Your task to perform on an android device: turn on improve location accuracy Image 0: 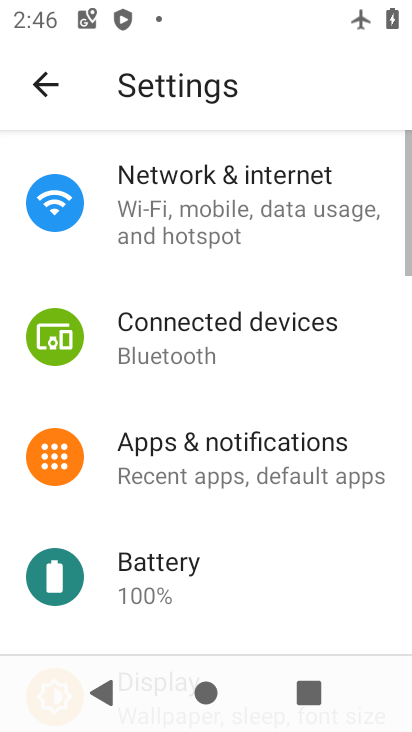
Step 0: drag from (252, 549) to (263, 229)
Your task to perform on an android device: turn on improve location accuracy Image 1: 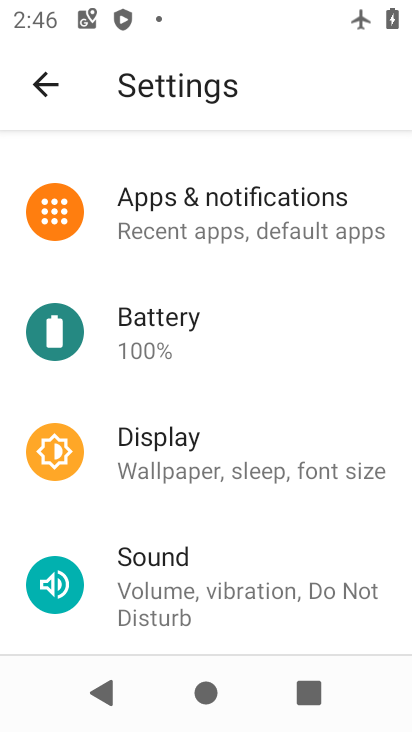
Step 1: drag from (202, 564) to (230, 223)
Your task to perform on an android device: turn on improve location accuracy Image 2: 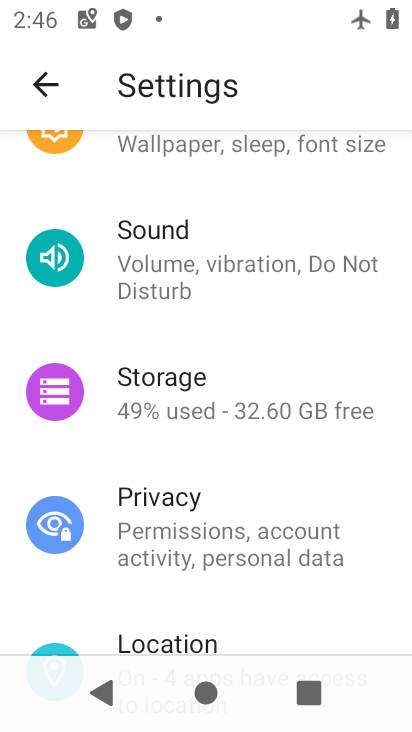
Step 2: click (185, 623)
Your task to perform on an android device: turn on improve location accuracy Image 3: 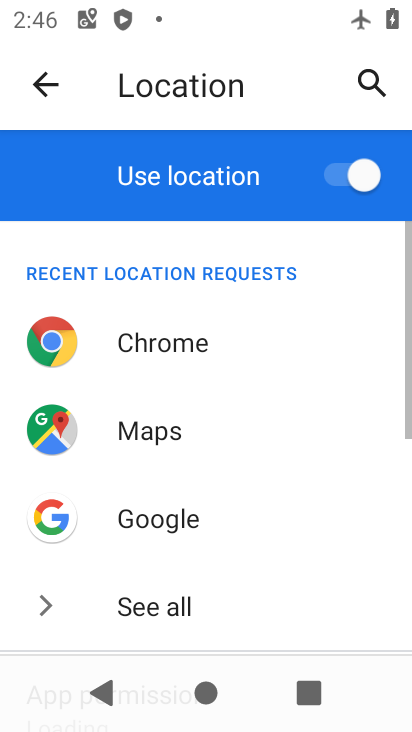
Step 3: drag from (211, 551) to (226, 240)
Your task to perform on an android device: turn on improve location accuracy Image 4: 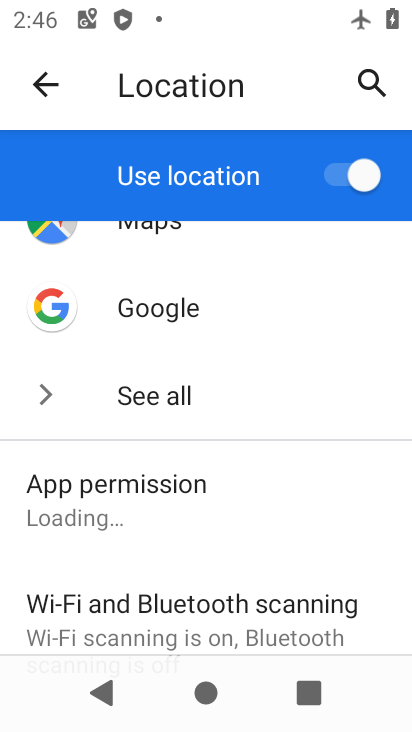
Step 4: drag from (180, 468) to (209, 271)
Your task to perform on an android device: turn on improve location accuracy Image 5: 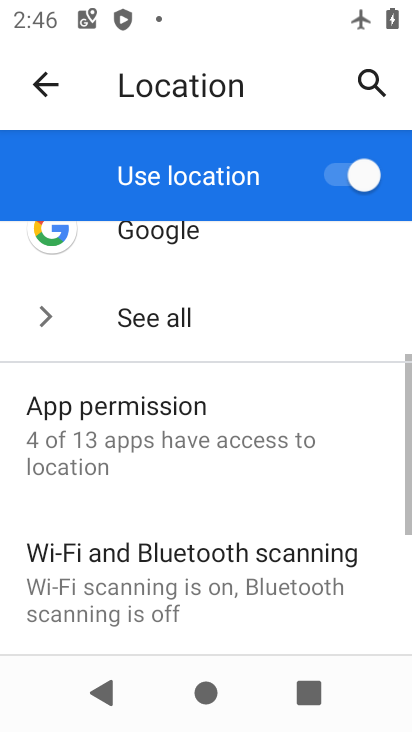
Step 5: drag from (176, 579) to (216, 314)
Your task to perform on an android device: turn on improve location accuracy Image 6: 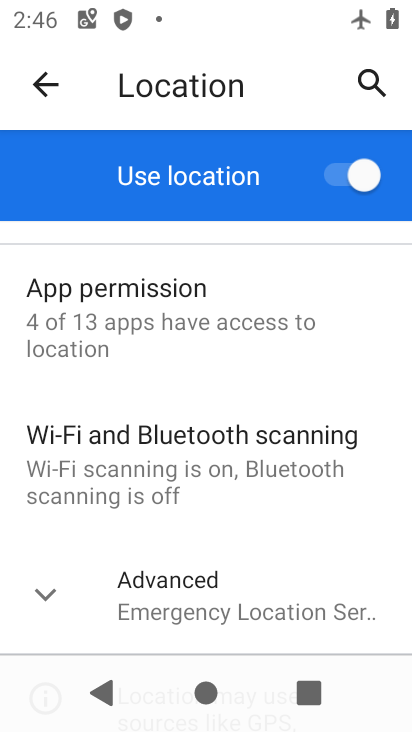
Step 6: drag from (193, 549) to (249, 308)
Your task to perform on an android device: turn on improve location accuracy Image 7: 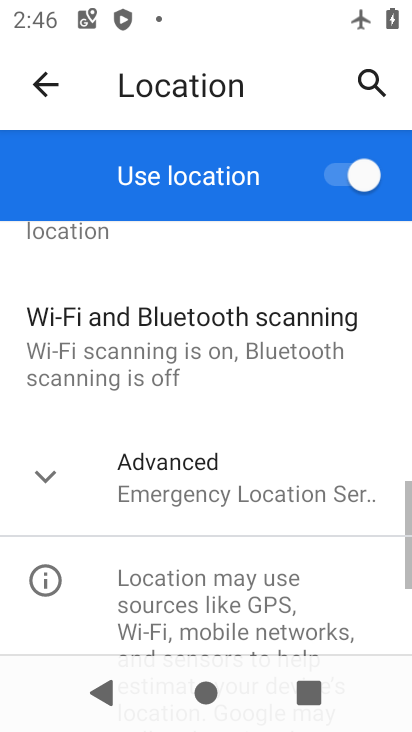
Step 7: drag from (266, 445) to (297, 280)
Your task to perform on an android device: turn on improve location accuracy Image 8: 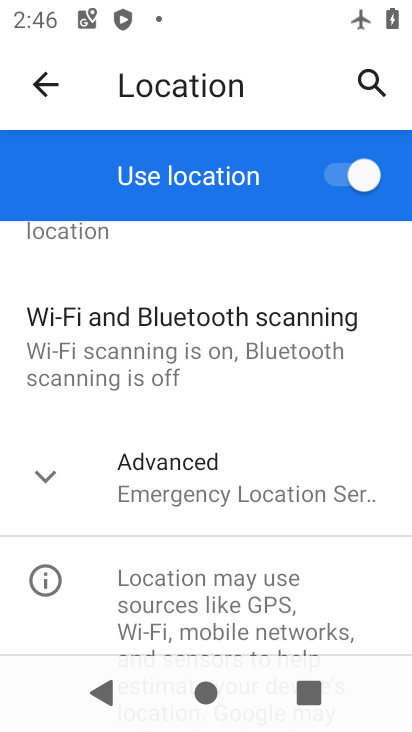
Step 8: click (235, 598)
Your task to perform on an android device: turn on improve location accuracy Image 9: 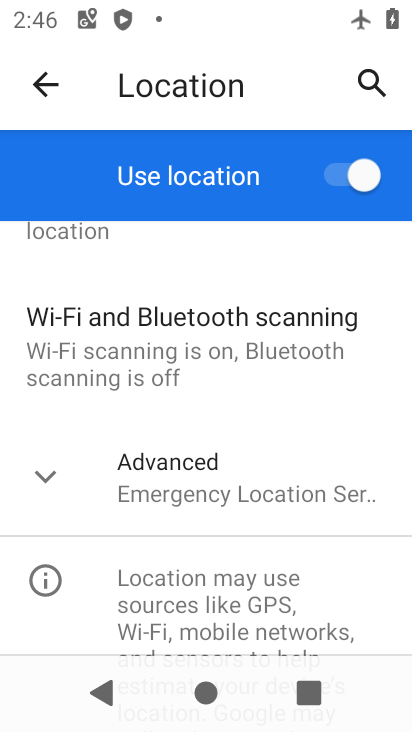
Step 9: click (233, 471)
Your task to perform on an android device: turn on improve location accuracy Image 10: 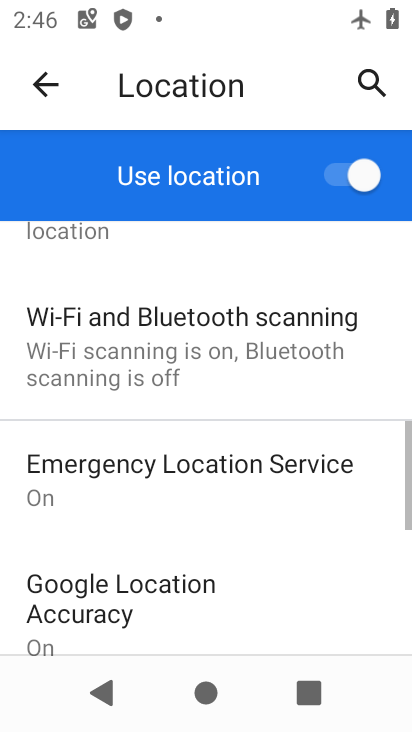
Step 10: task complete